Your task to perform on an android device: delete location history Image 0: 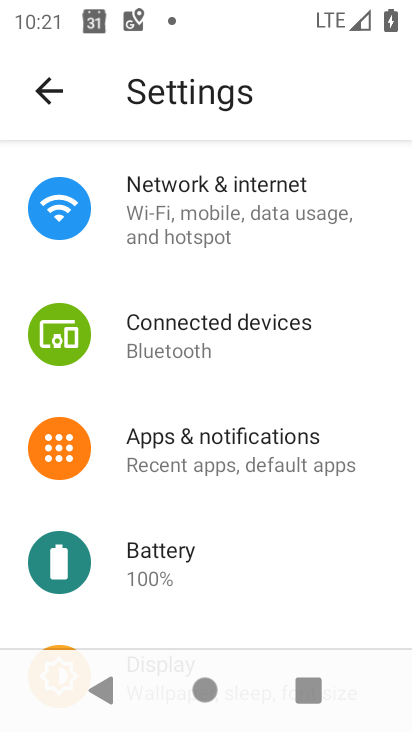
Step 0: press home button
Your task to perform on an android device: delete location history Image 1: 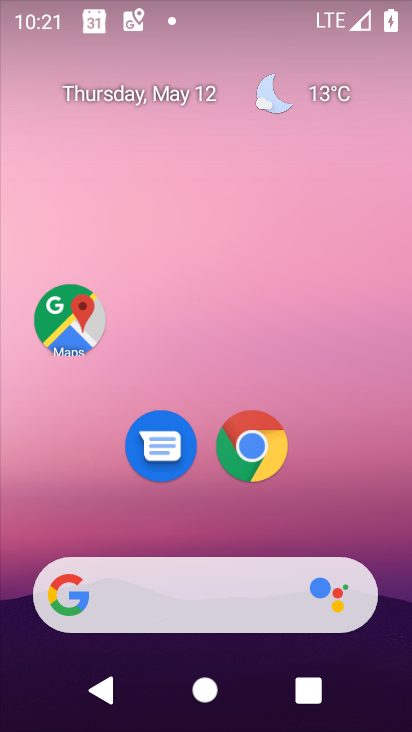
Step 1: drag from (250, 572) to (318, 12)
Your task to perform on an android device: delete location history Image 2: 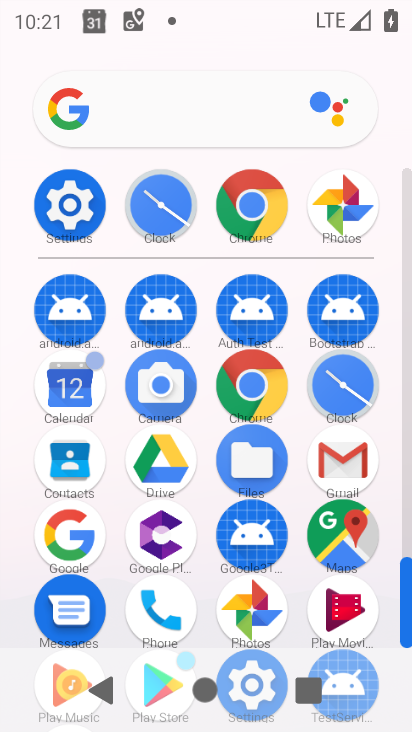
Step 2: click (345, 529)
Your task to perform on an android device: delete location history Image 3: 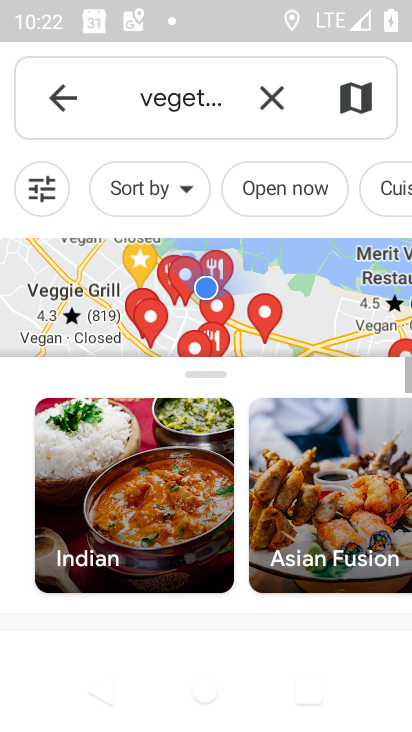
Step 3: press back button
Your task to perform on an android device: delete location history Image 4: 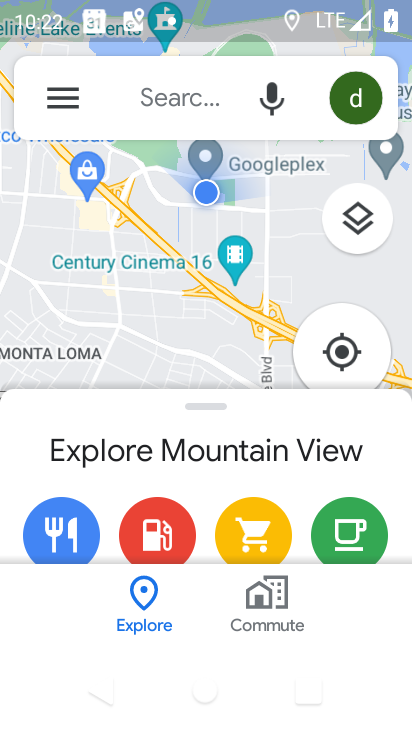
Step 4: click (67, 97)
Your task to perform on an android device: delete location history Image 5: 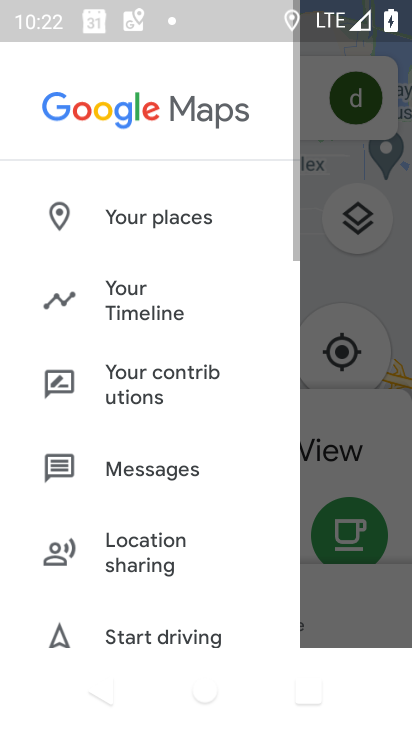
Step 5: drag from (201, 542) to (224, 243)
Your task to perform on an android device: delete location history Image 6: 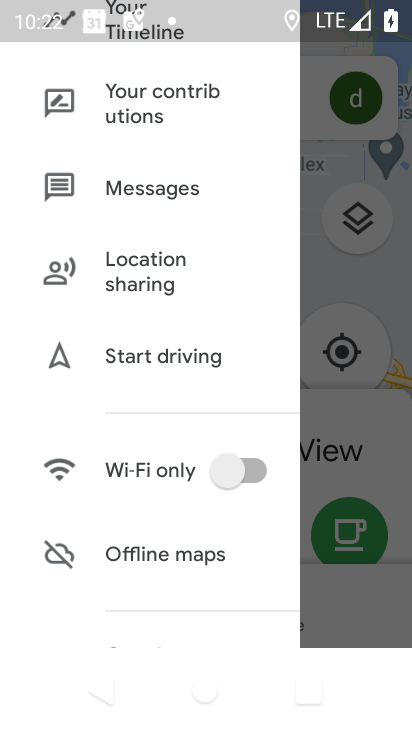
Step 6: drag from (224, 243) to (192, 523)
Your task to perform on an android device: delete location history Image 7: 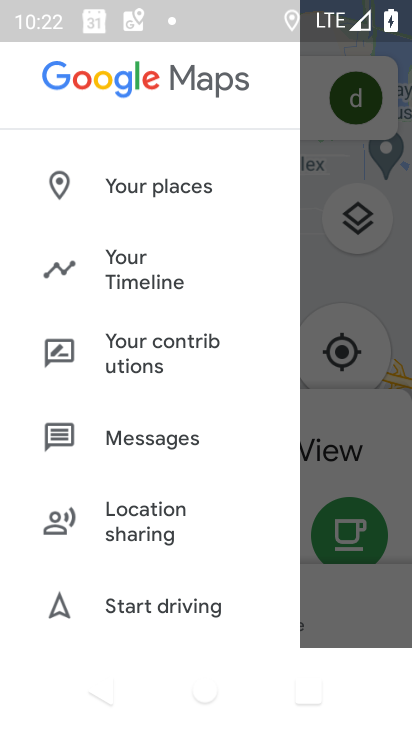
Step 7: click (143, 263)
Your task to perform on an android device: delete location history Image 8: 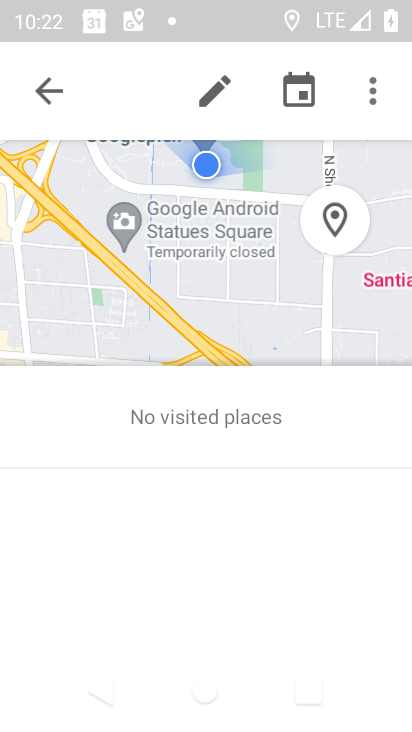
Step 8: click (366, 90)
Your task to perform on an android device: delete location history Image 9: 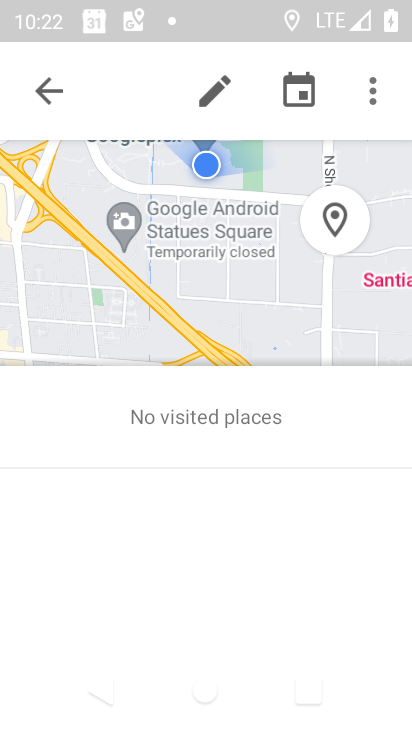
Step 9: click (364, 87)
Your task to perform on an android device: delete location history Image 10: 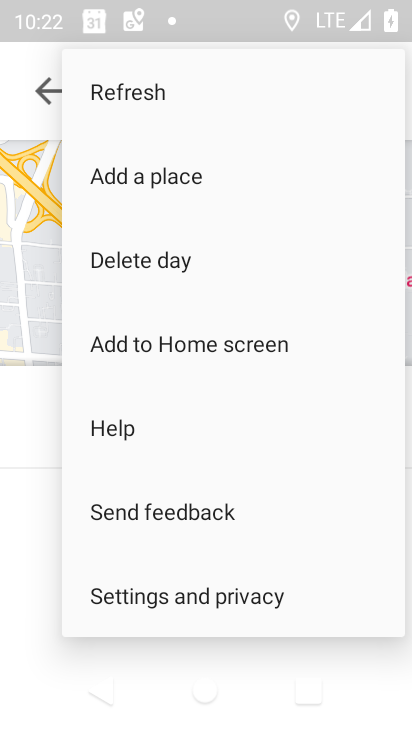
Step 10: click (174, 591)
Your task to perform on an android device: delete location history Image 11: 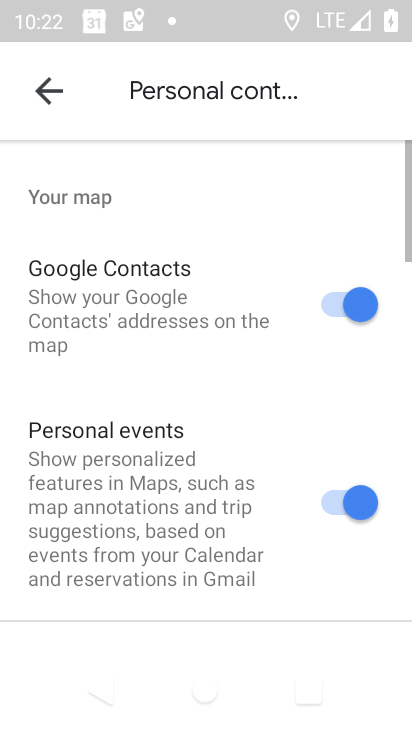
Step 11: drag from (174, 595) to (189, 41)
Your task to perform on an android device: delete location history Image 12: 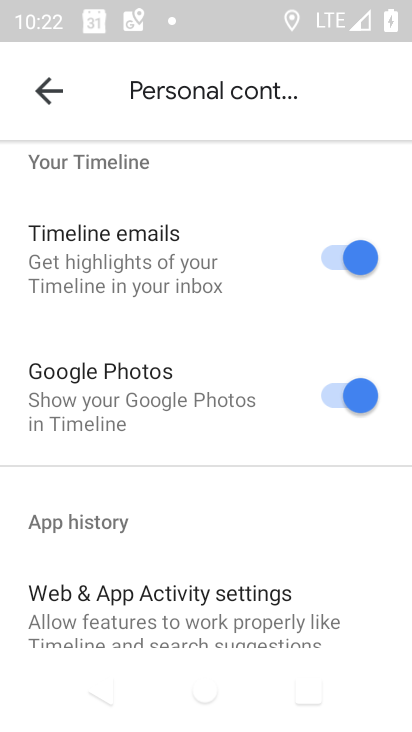
Step 12: drag from (178, 604) to (235, 126)
Your task to perform on an android device: delete location history Image 13: 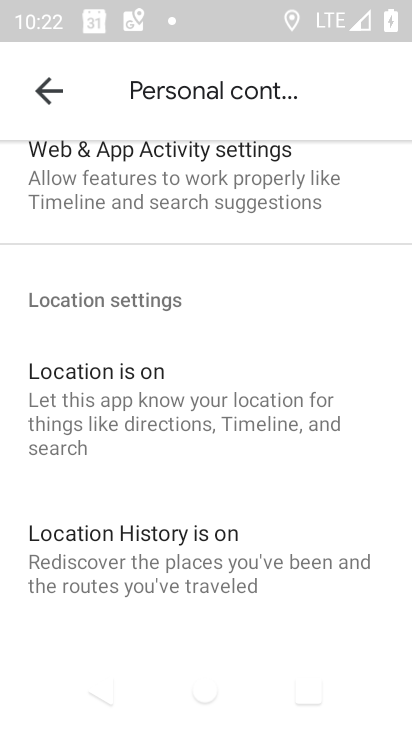
Step 13: drag from (202, 561) to (227, 193)
Your task to perform on an android device: delete location history Image 14: 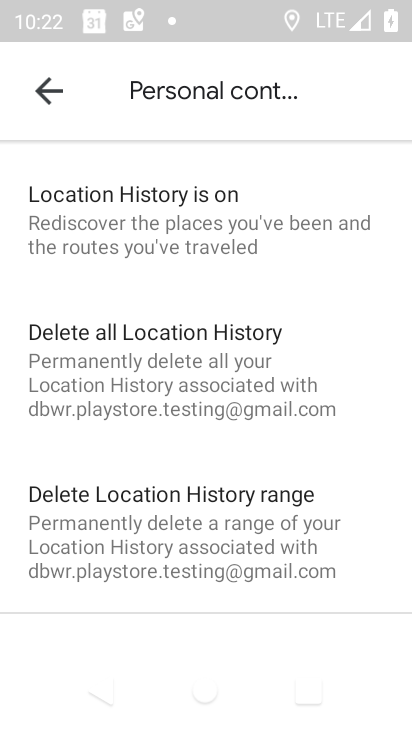
Step 14: click (158, 346)
Your task to perform on an android device: delete location history Image 15: 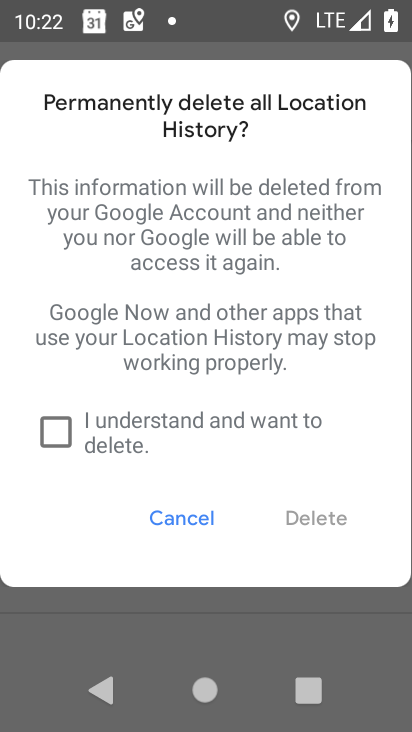
Step 15: click (63, 430)
Your task to perform on an android device: delete location history Image 16: 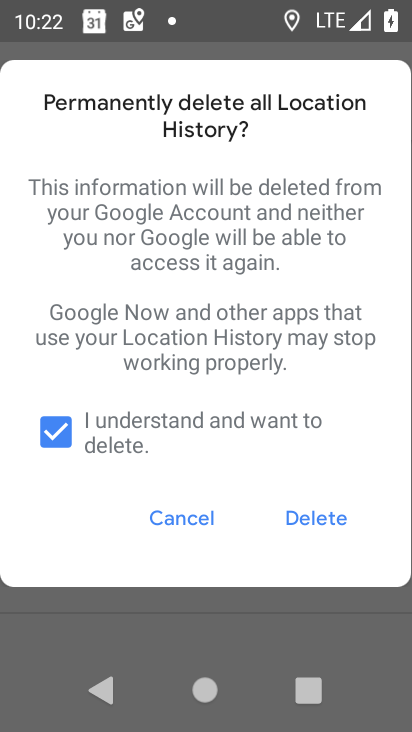
Step 16: click (312, 507)
Your task to perform on an android device: delete location history Image 17: 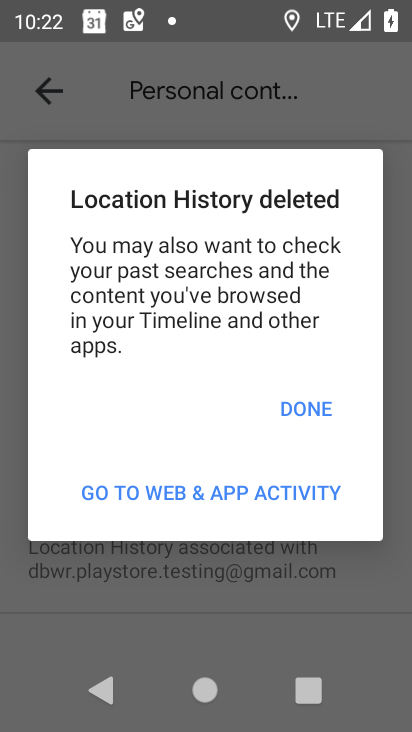
Step 17: click (311, 414)
Your task to perform on an android device: delete location history Image 18: 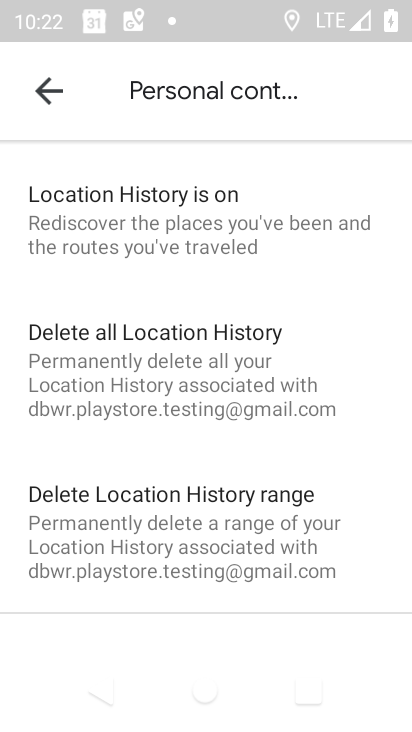
Step 18: task complete